Your task to perform on an android device: Open accessibility settings Image 0: 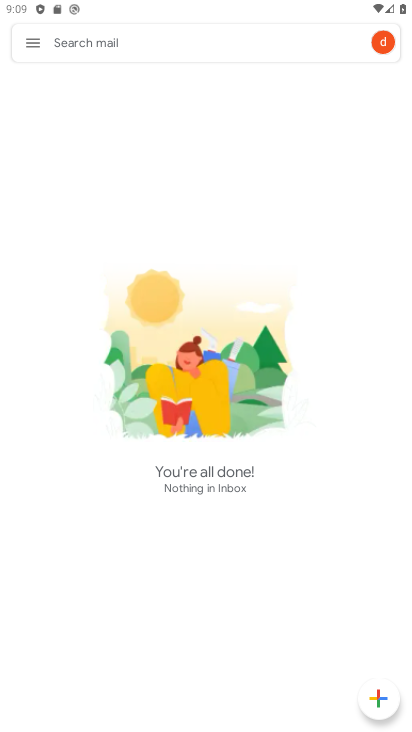
Step 0: press home button
Your task to perform on an android device: Open accessibility settings Image 1: 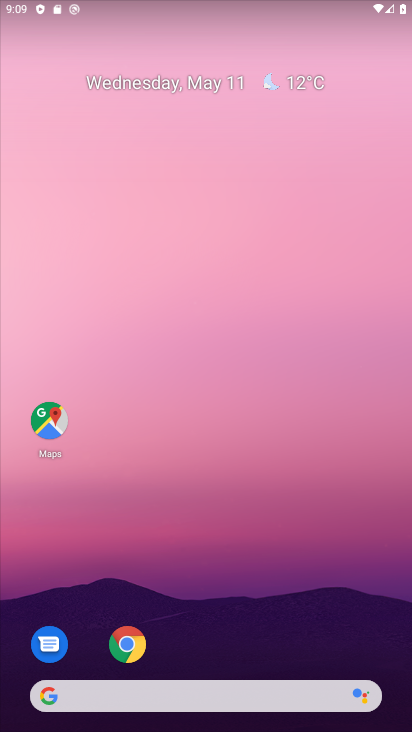
Step 1: drag from (297, 626) to (310, 111)
Your task to perform on an android device: Open accessibility settings Image 2: 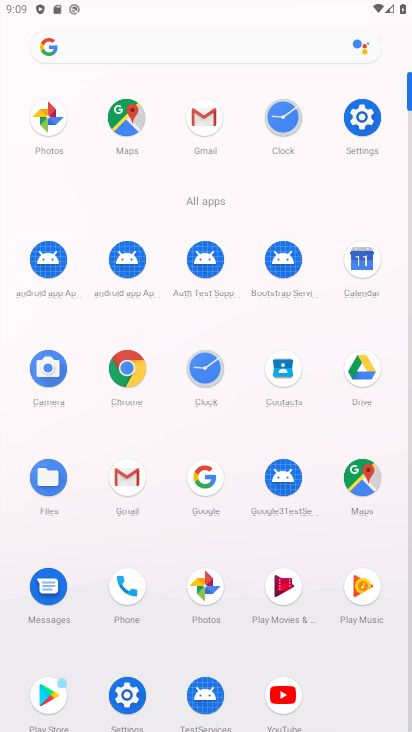
Step 2: click (131, 702)
Your task to perform on an android device: Open accessibility settings Image 3: 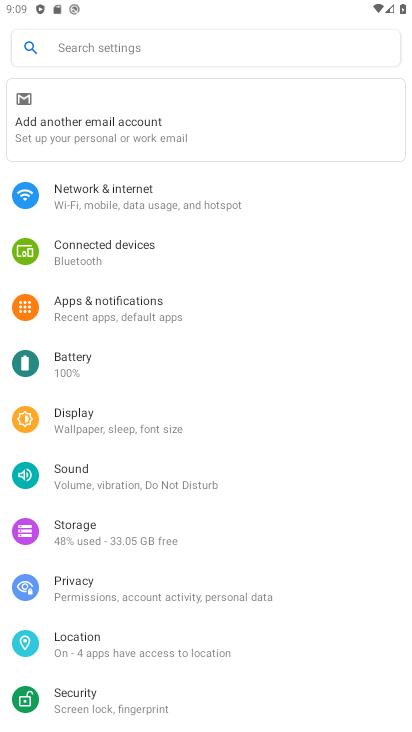
Step 3: drag from (136, 624) to (194, 281)
Your task to perform on an android device: Open accessibility settings Image 4: 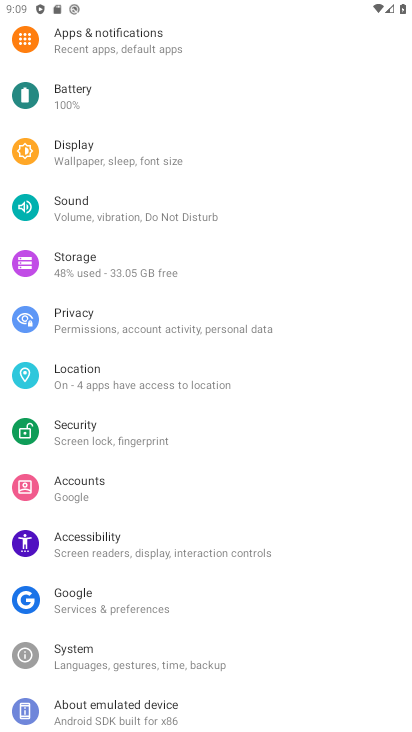
Step 4: click (175, 537)
Your task to perform on an android device: Open accessibility settings Image 5: 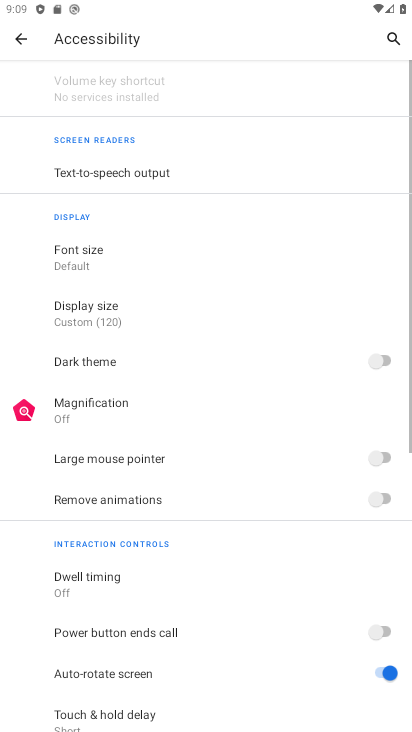
Step 5: task complete